Your task to perform on an android device: Open settings on Google Maps Image 0: 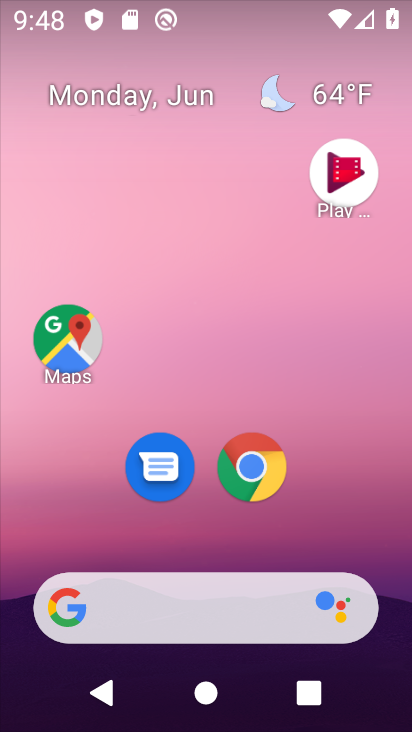
Step 0: click (82, 356)
Your task to perform on an android device: Open settings on Google Maps Image 1: 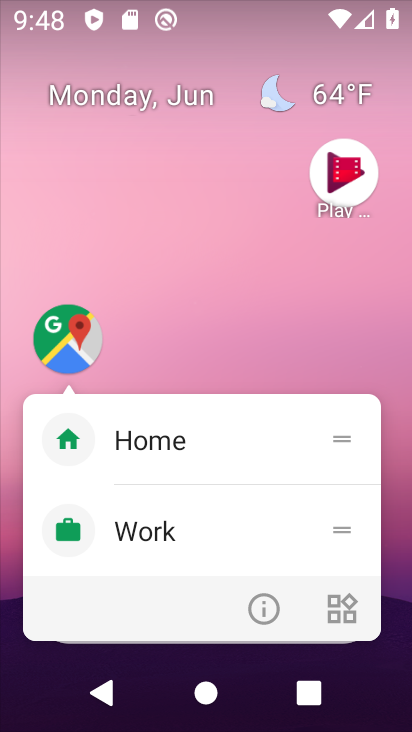
Step 1: click (82, 355)
Your task to perform on an android device: Open settings on Google Maps Image 2: 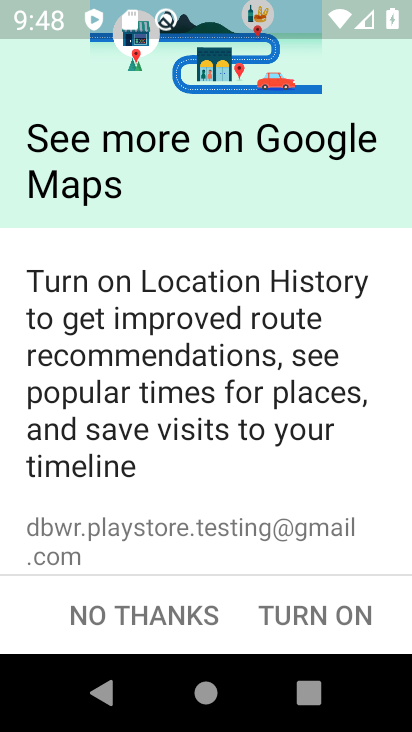
Step 2: click (165, 631)
Your task to perform on an android device: Open settings on Google Maps Image 3: 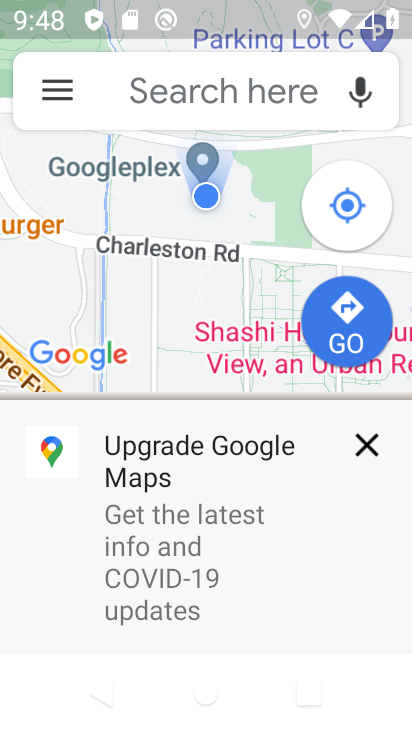
Step 3: click (364, 457)
Your task to perform on an android device: Open settings on Google Maps Image 4: 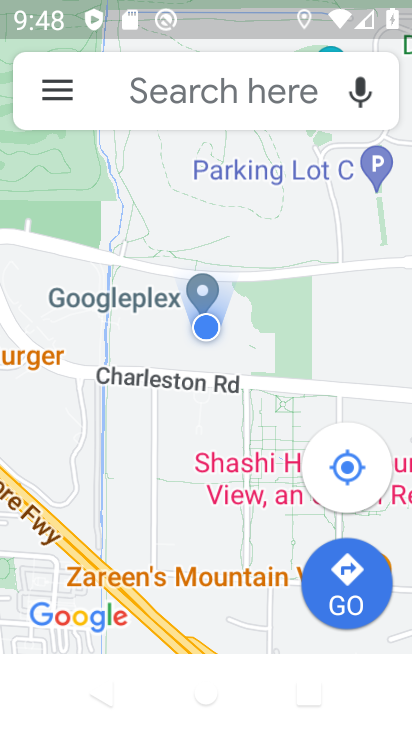
Step 4: click (75, 105)
Your task to perform on an android device: Open settings on Google Maps Image 5: 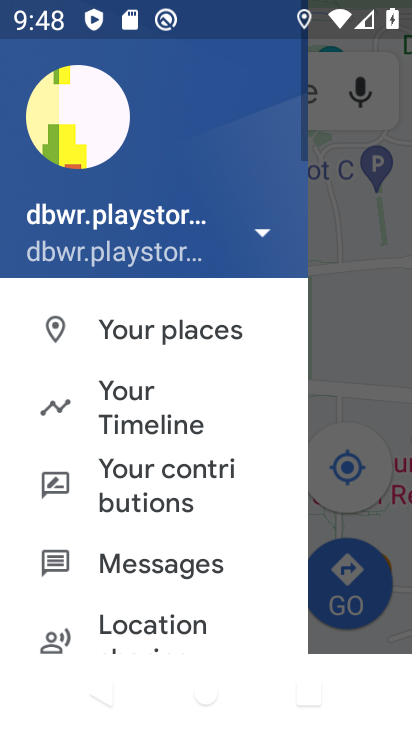
Step 5: drag from (143, 524) to (261, 91)
Your task to perform on an android device: Open settings on Google Maps Image 6: 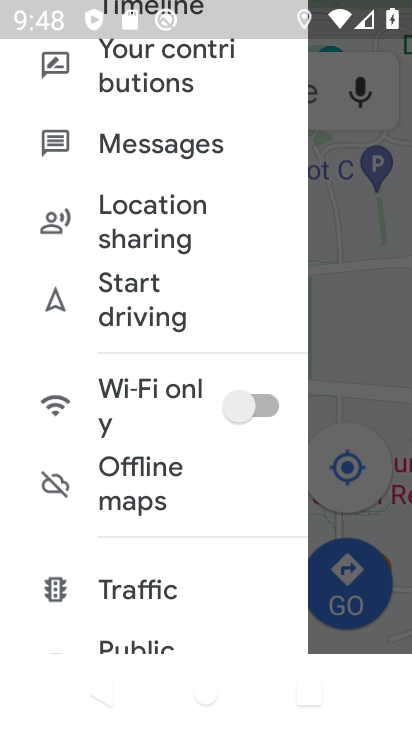
Step 6: drag from (131, 532) to (228, 165)
Your task to perform on an android device: Open settings on Google Maps Image 7: 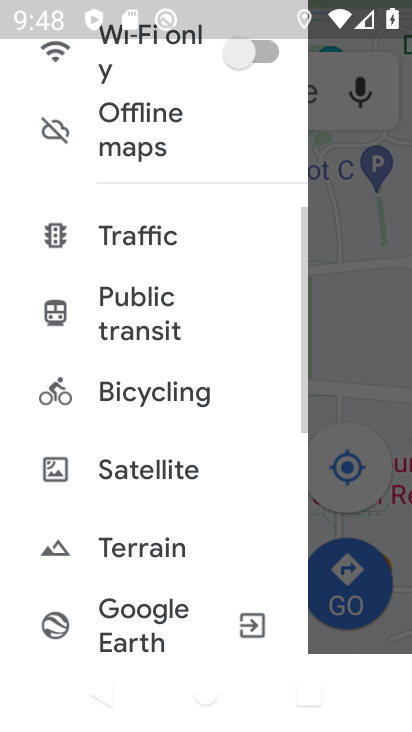
Step 7: drag from (122, 630) to (228, 128)
Your task to perform on an android device: Open settings on Google Maps Image 8: 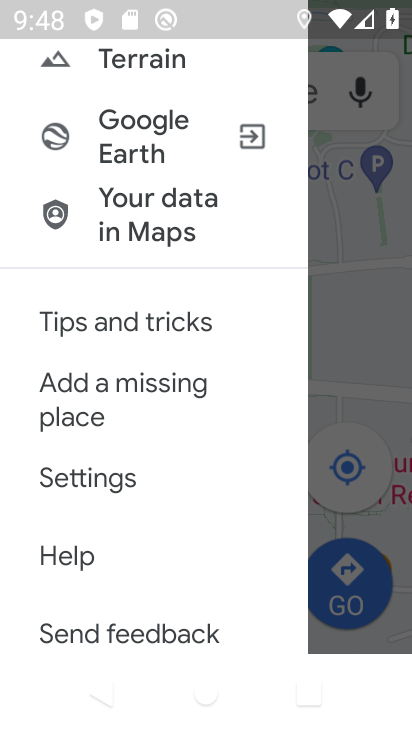
Step 8: drag from (115, 590) to (198, 295)
Your task to perform on an android device: Open settings on Google Maps Image 9: 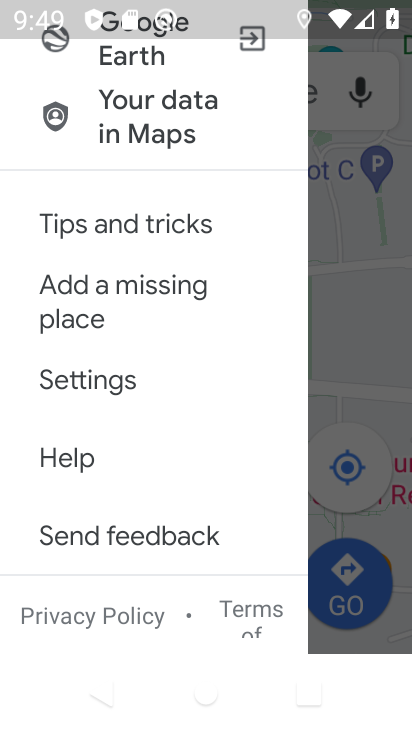
Step 9: click (145, 376)
Your task to perform on an android device: Open settings on Google Maps Image 10: 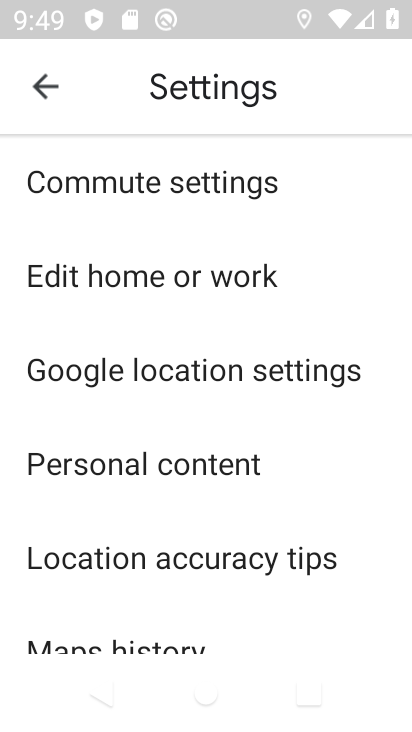
Step 10: task complete